Your task to perform on an android device: Show me productivity apps on the Play Store Image 0: 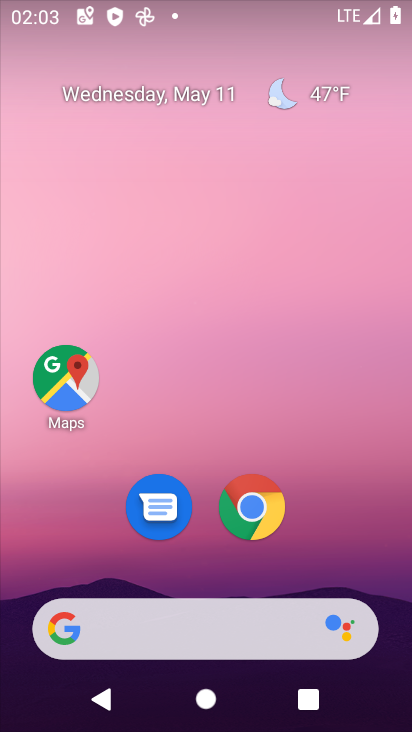
Step 0: drag from (342, 544) to (207, 34)
Your task to perform on an android device: Show me productivity apps on the Play Store Image 1: 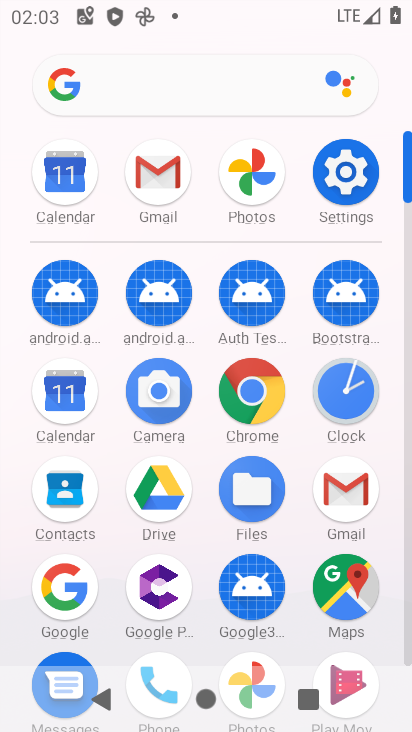
Step 1: drag from (208, 578) to (164, 261)
Your task to perform on an android device: Show me productivity apps on the Play Store Image 2: 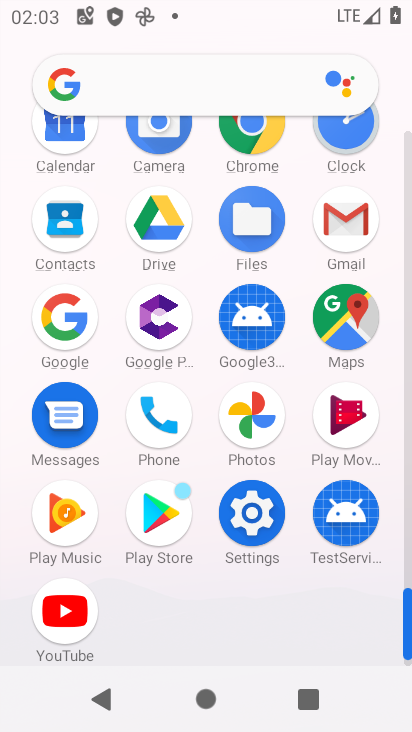
Step 2: click (165, 524)
Your task to perform on an android device: Show me productivity apps on the Play Store Image 3: 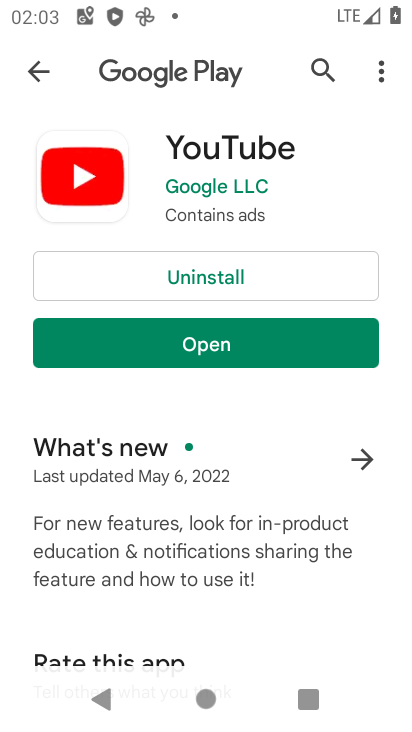
Step 3: click (41, 73)
Your task to perform on an android device: Show me productivity apps on the Play Store Image 4: 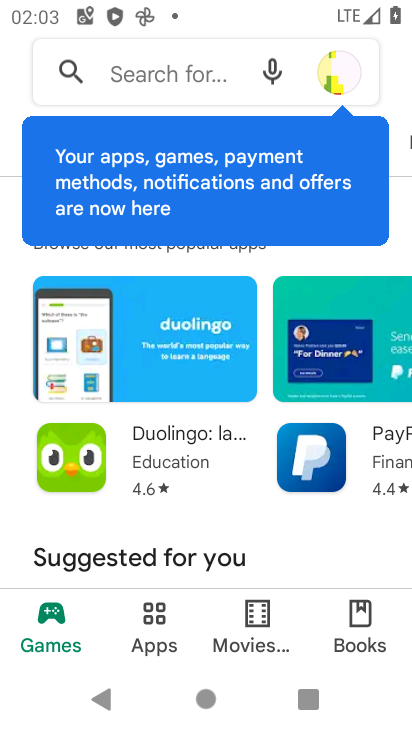
Step 4: click (148, 636)
Your task to perform on an android device: Show me productivity apps on the Play Store Image 5: 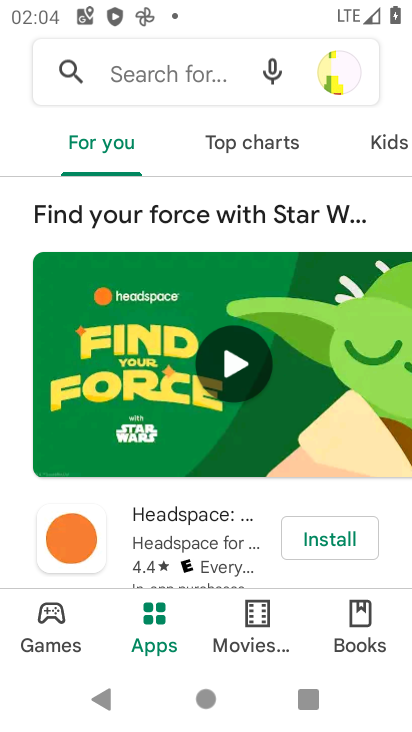
Step 5: task complete